Your task to perform on an android device: turn off airplane mode Image 0: 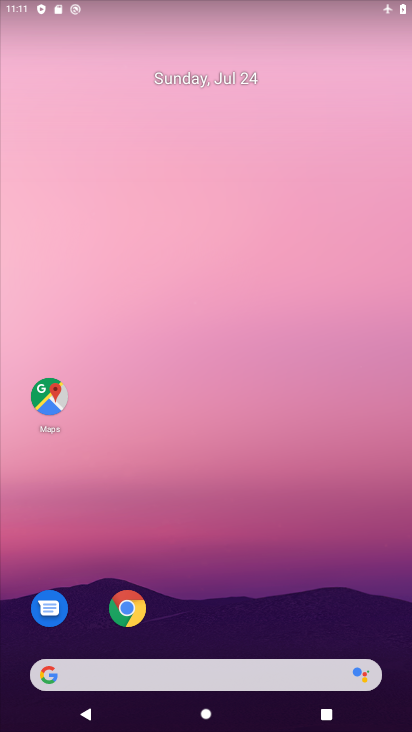
Step 0: drag from (244, 649) to (234, 22)
Your task to perform on an android device: turn off airplane mode Image 1: 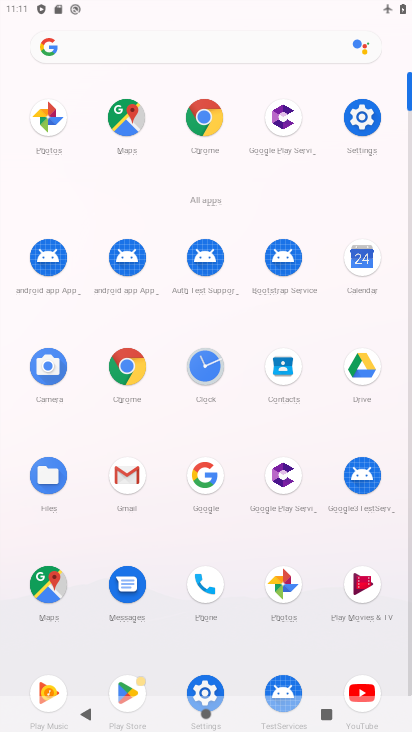
Step 1: click (356, 115)
Your task to perform on an android device: turn off airplane mode Image 2: 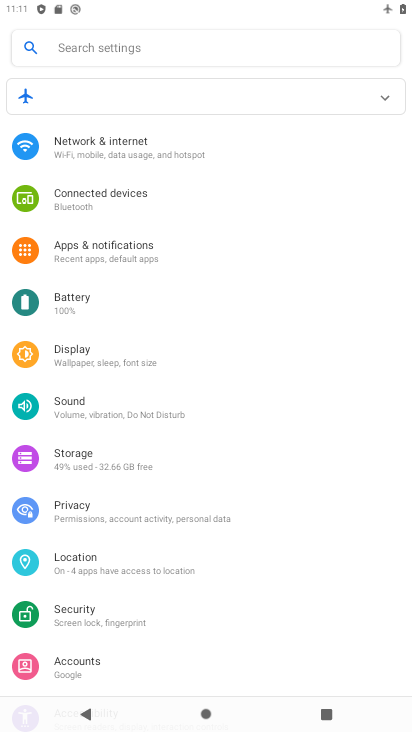
Step 2: click (83, 148)
Your task to perform on an android device: turn off airplane mode Image 3: 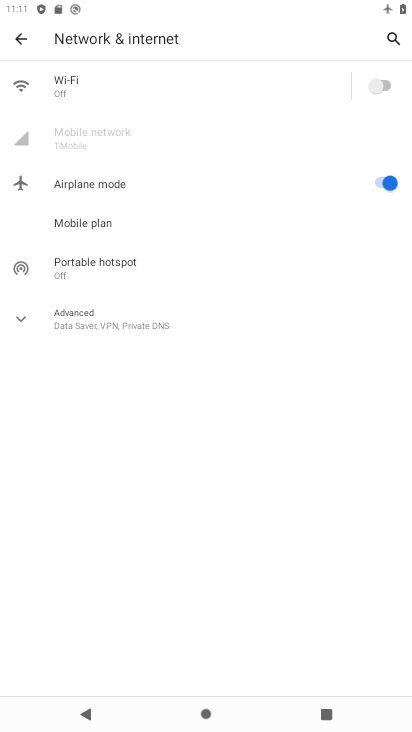
Step 3: click (394, 182)
Your task to perform on an android device: turn off airplane mode Image 4: 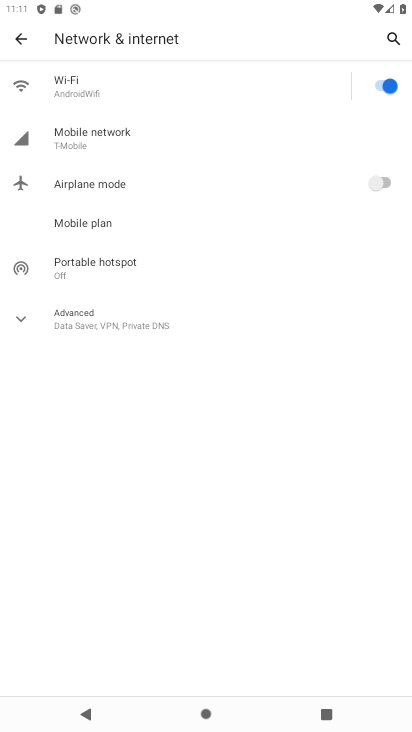
Step 4: task complete